Your task to perform on an android device: visit the assistant section in the google photos Image 0: 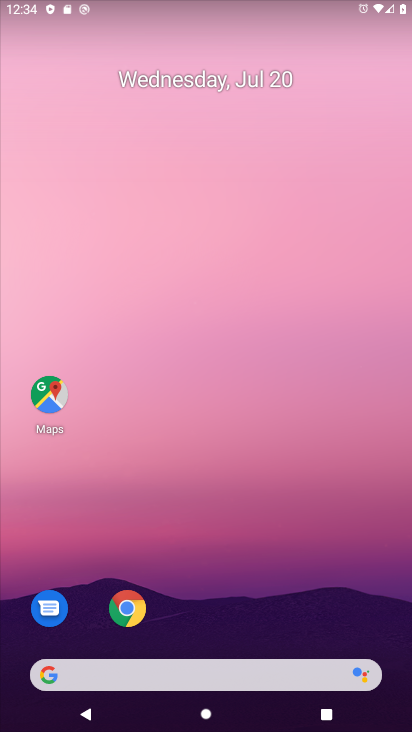
Step 0: drag from (193, 668) to (207, 238)
Your task to perform on an android device: visit the assistant section in the google photos Image 1: 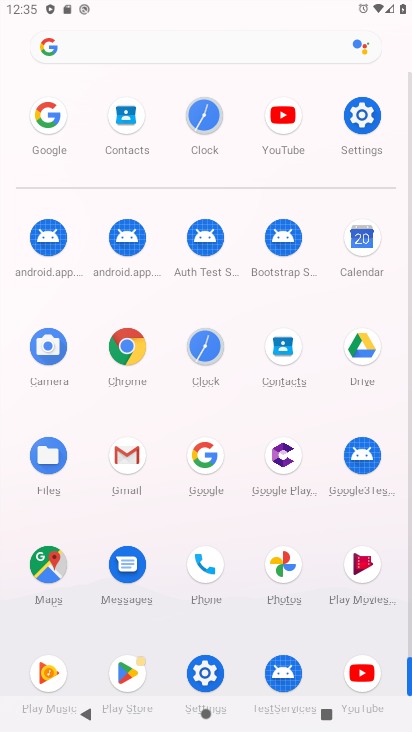
Step 1: click (281, 564)
Your task to perform on an android device: visit the assistant section in the google photos Image 2: 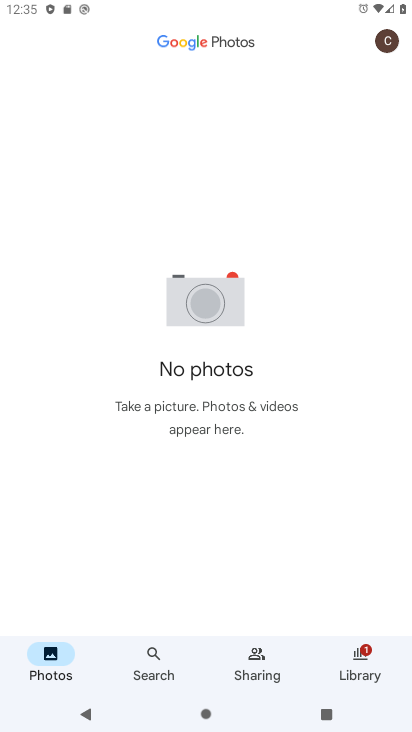
Step 2: click (369, 654)
Your task to perform on an android device: visit the assistant section in the google photos Image 3: 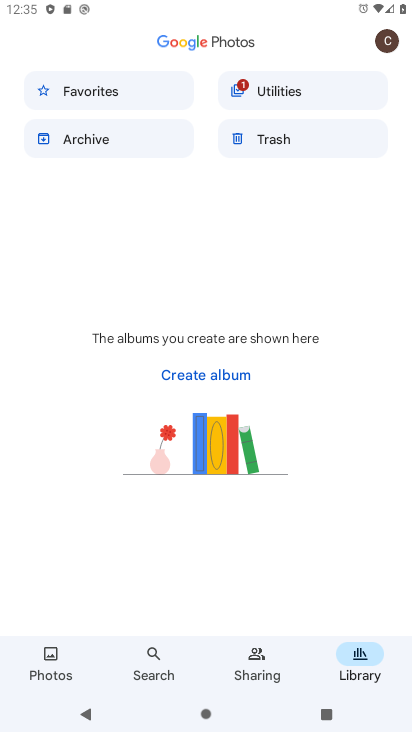
Step 3: click (91, 143)
Your task to perform on an android device: visit the assistant section in the google photos Image 4: 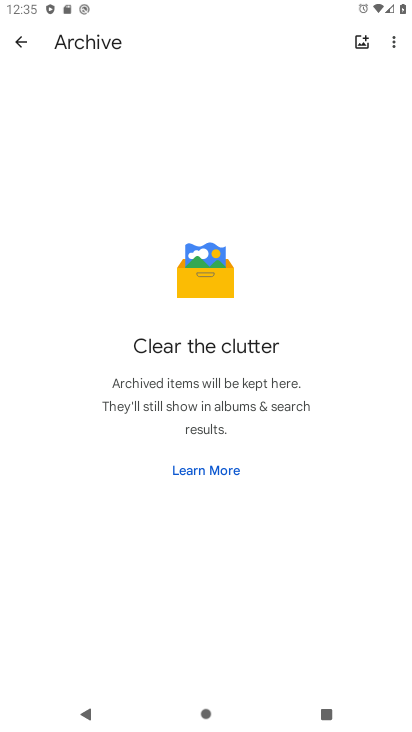
Step 4: press back button
Your task to perform on an android device: visit the assistant section in the google photos Image 5: 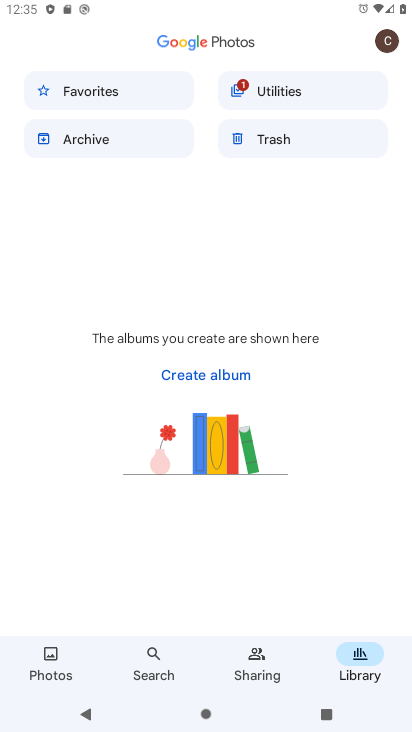
Step 5: click (276, 82)
Your task to perform on an android device: visit the assistant section in the google photos Image 6: 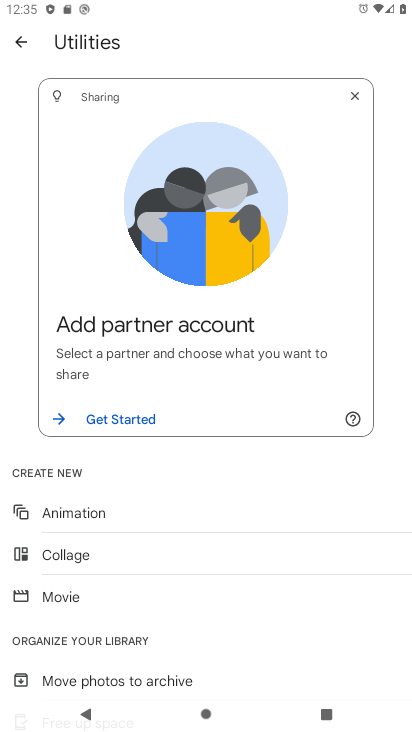
Step 6: drag from (119, 542) to (190, 448)
Your task to perform on an android device: visit the assistant section in the google photos Image 7: 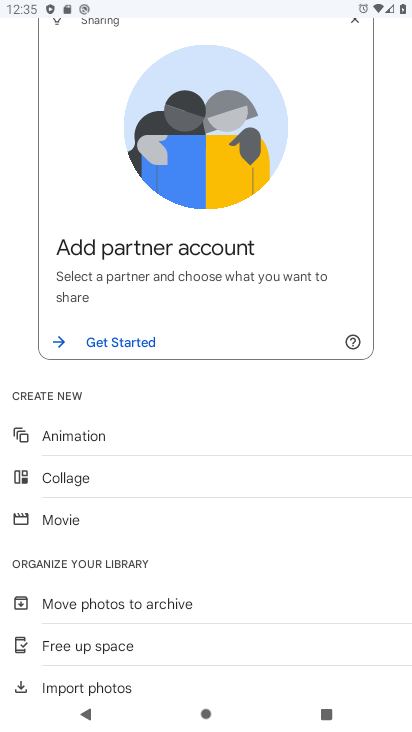
Step 7: drag from (137, 602) to (225, 429)
Your task to perform on an android device: visit the assistant section in the google photos Image 8: 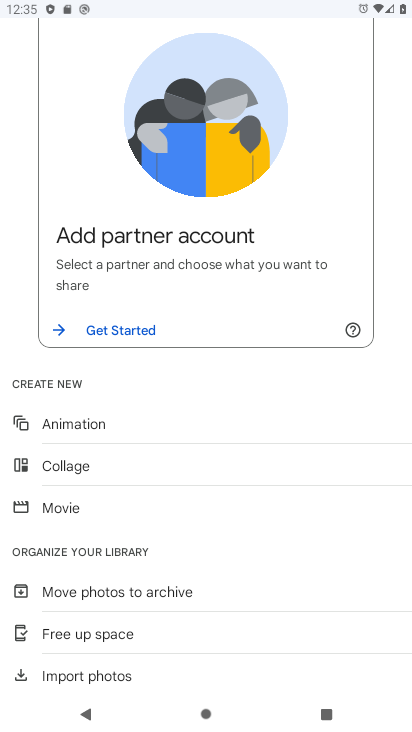
Step 8: drag from (156, 652) to (211, 482)
Your task to perform on an android device: visit the assistant section in the google photos Image 9: 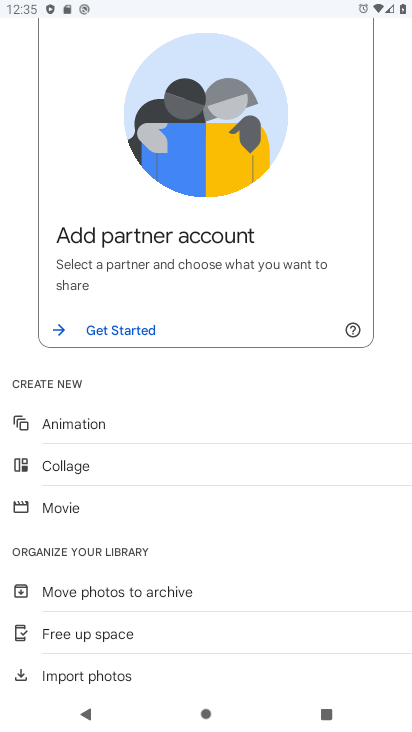
Step 9: press back button
Your task to perform on an android device: visit the assistant section in the google photos Image 10: 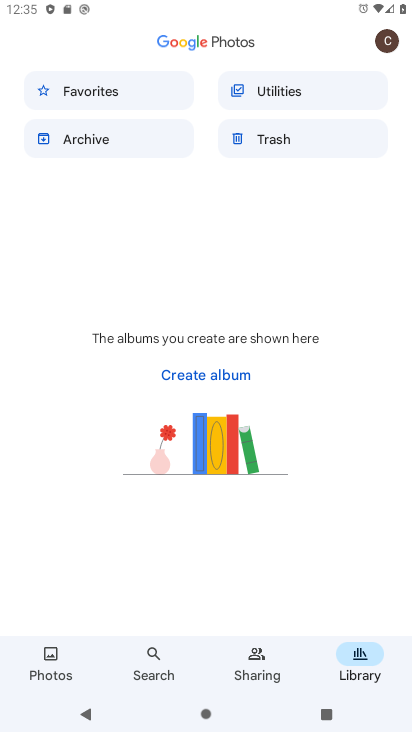
Step 10: click (273, 140)
Your task to perform on an android device: visit the assistant section in the google photos Image 11: 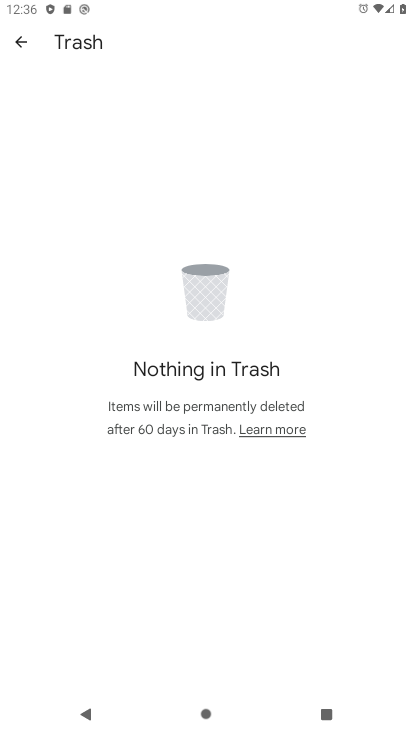
Step 11: press back button
Your task to perform on an android device: visit the assistant section in the google photos Image 12: 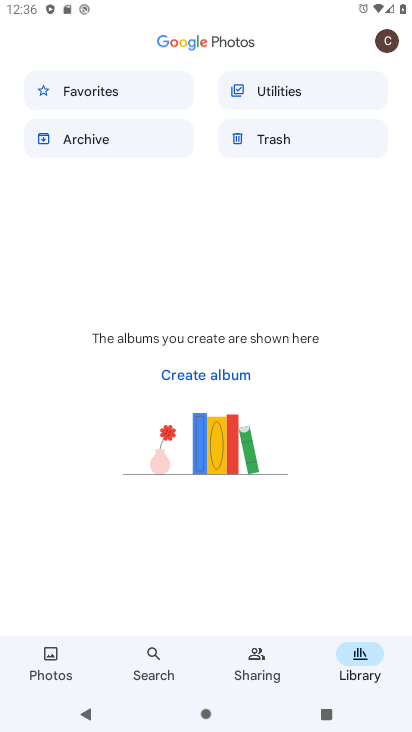
Step 12: click (67, 133)
Your task to perform on an android device: visit the assistant section in the google photos Image 13: 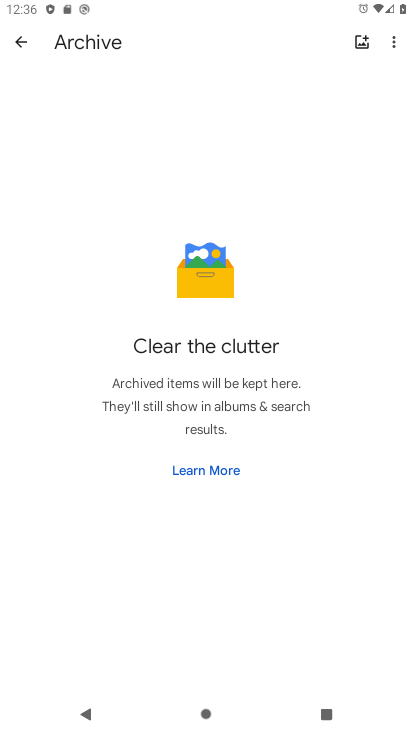
Step 13: task complete